Your task to perform on an android device: Open calendar and show me the fourth week of next month Image 0: 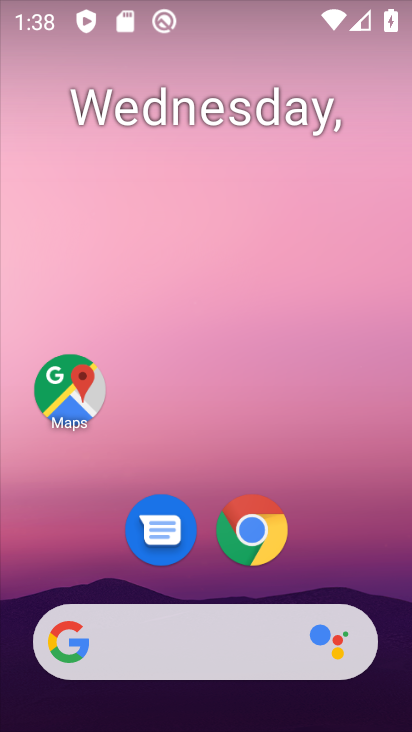
Step 0: drag from (248, 233) to (272, 91)
Your task to perform on an android device: Open calendar and show me the fourth week of next month Image 1: 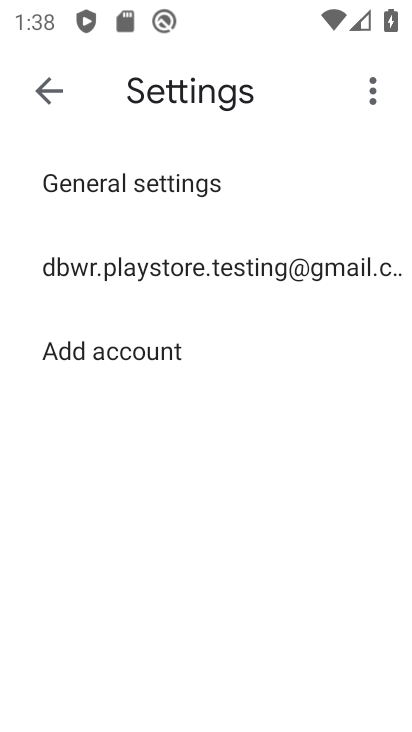
Step 1: press back button
Your task to perform on an android device: Open calendar and show me the fourth week of next month Image 2: 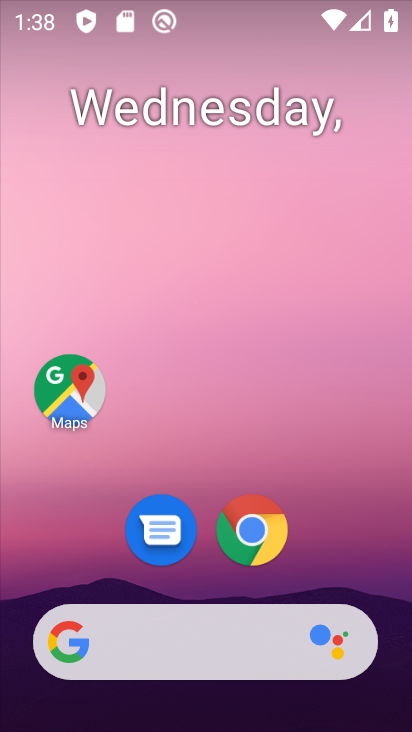
Step 2: drag from (174, 552) to (269, 48)
Your task to perform on an android device: Open calendar and show me the fourth week of next month Image 3: 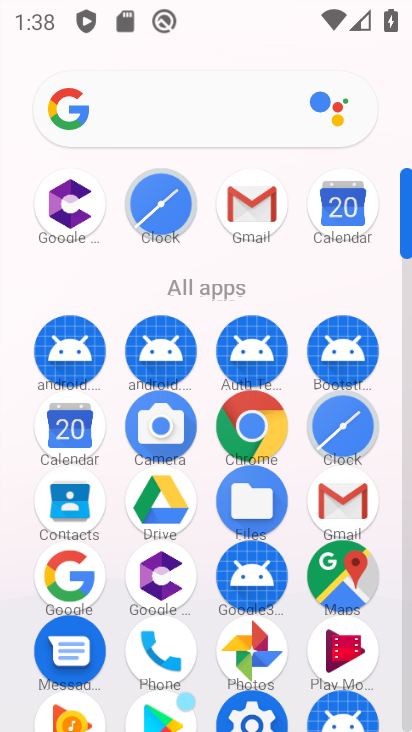
Step 3: click (75, 444)
Your task to perform on an android device: Open calendar and show me the fourth week of next month Image 4: 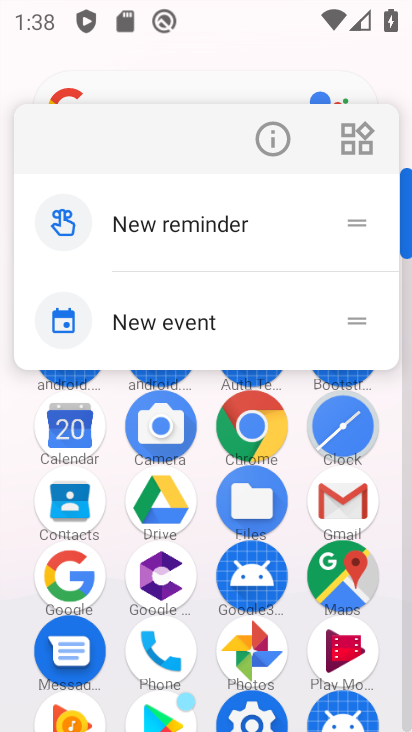
Step 4: click (54, 417)
Your task to perform on an android device: Open calendar and show me the fourth week of next month Image 5: 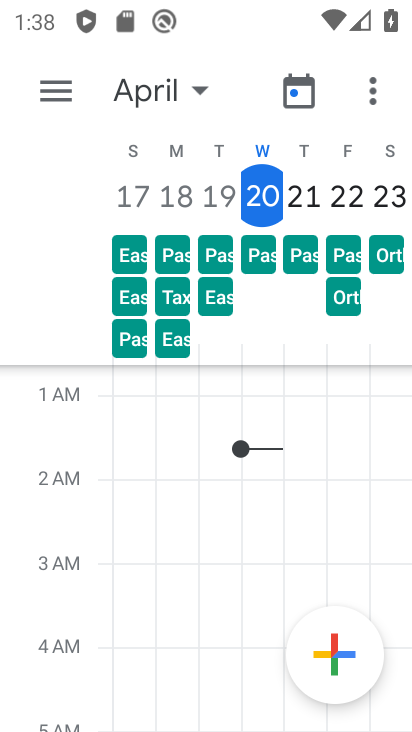
Step 5: click (175, 90)
Your task to perform on an android device: Open calendar and show me the fourth week of next month Image 6: 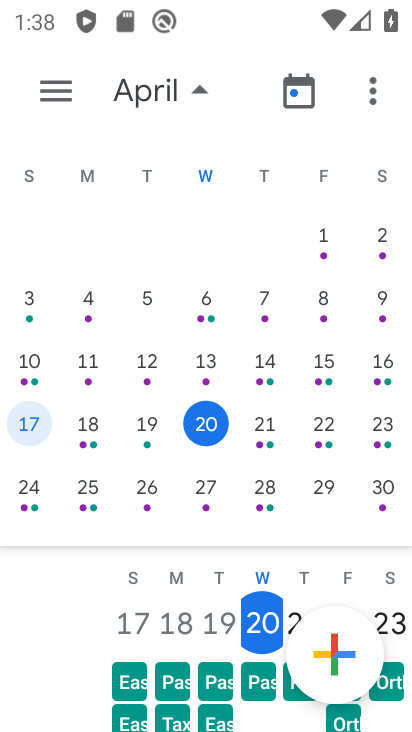
Step 6: click (28, 497)
Your task to perform on an android device: Open calendar and show me the fourth week of next month Image 7: 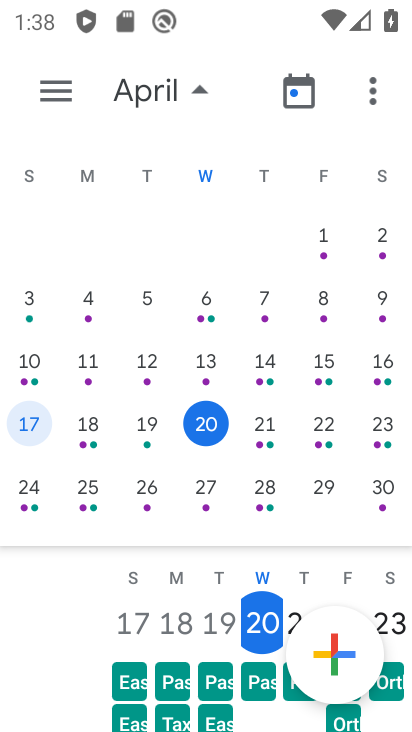
Step 7: click (31, 495)
Your task to perform on an android device: Open calendar and show me the fourth week of next month Image 8: 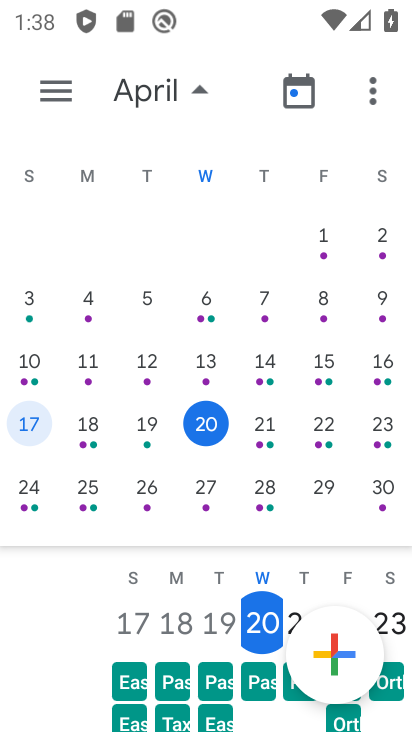
Step 8: click (31, 495)
Your task to perform on an android device: Open calendar and show me the fourth week of next month Image 9: 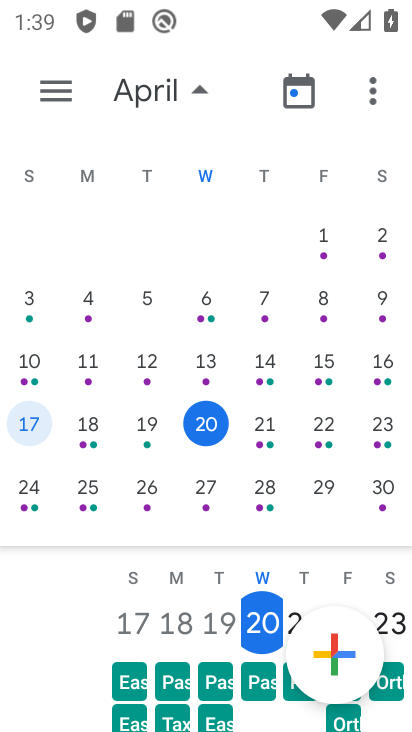
Step 9: click (31, 495)
Your task to perform on an android device: Open calendar and show me the fourth week of next month Image 10: 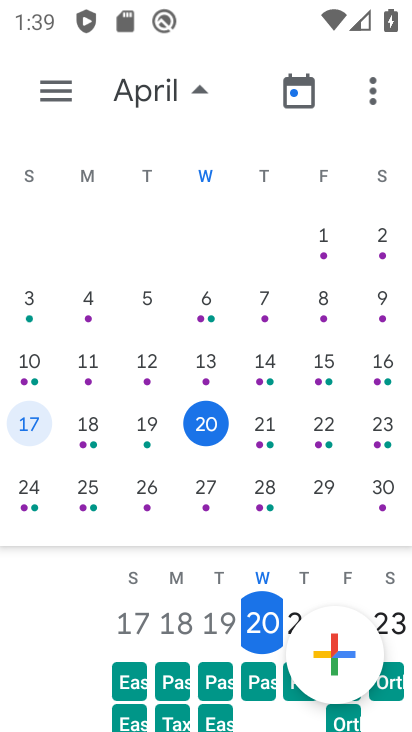
Step 10: click (46, 487)
Your task to perform on an android device: Open calendar and show me the fourth week of next month Image 11: 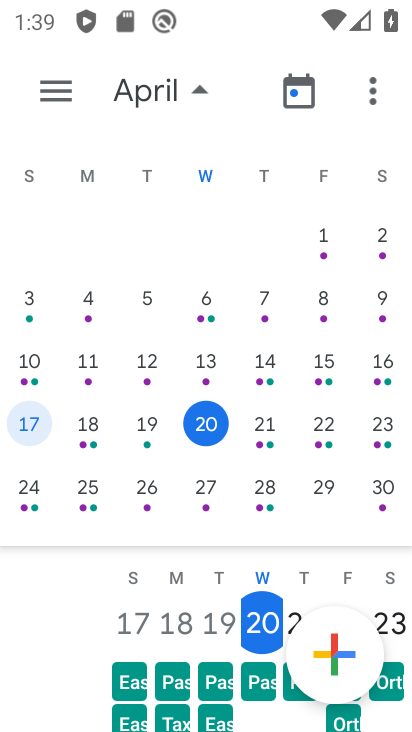
Step 11: click (44, 498)
Your task to perform on an android device: Open calendar and show me the fourth week of next month Image 12: 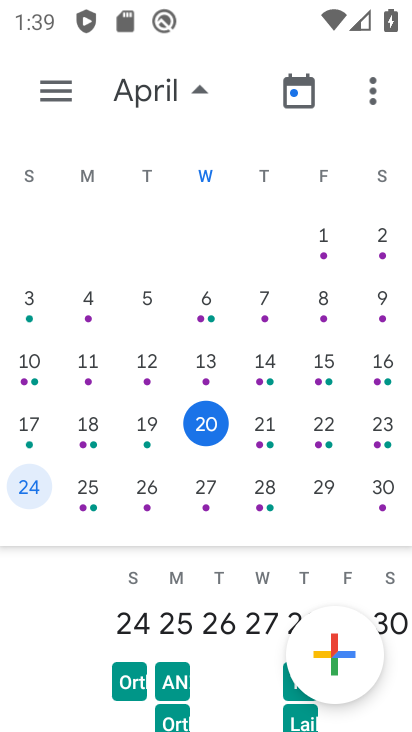
Step 12: click (199, 91)
Your task to perform on an android device: Open calendar and show me the fourth week of next month Image 13: 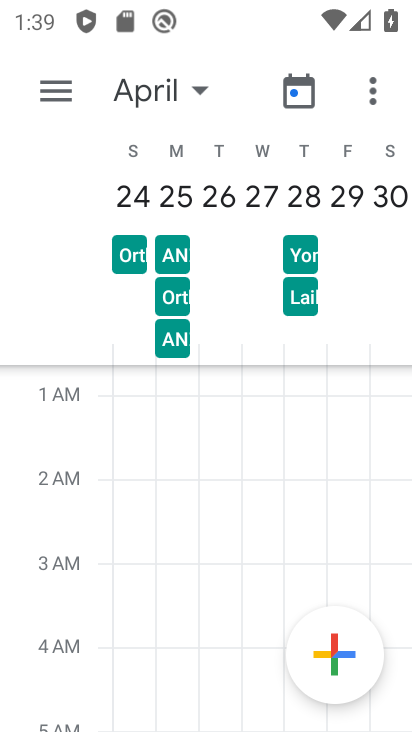
Step 13: task complete